Your task to perform on an android device: install app "Expedia: Hotels, Flights & Car" Image 0: 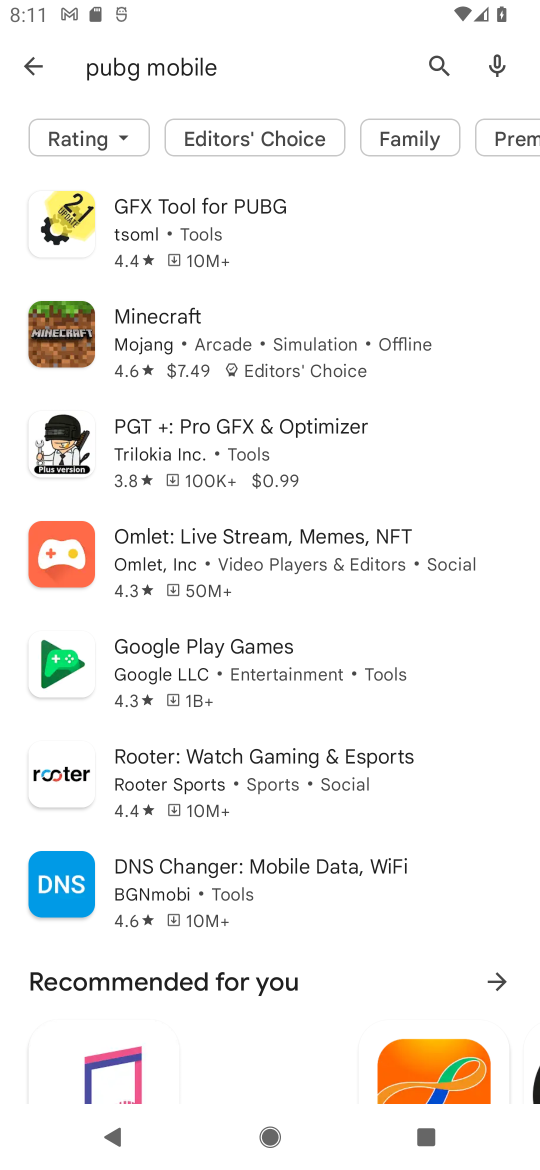
Step 0: press home button
Your task to perform on an android device: install app "Expedia: Hotels, Flights & Car" Image 1: 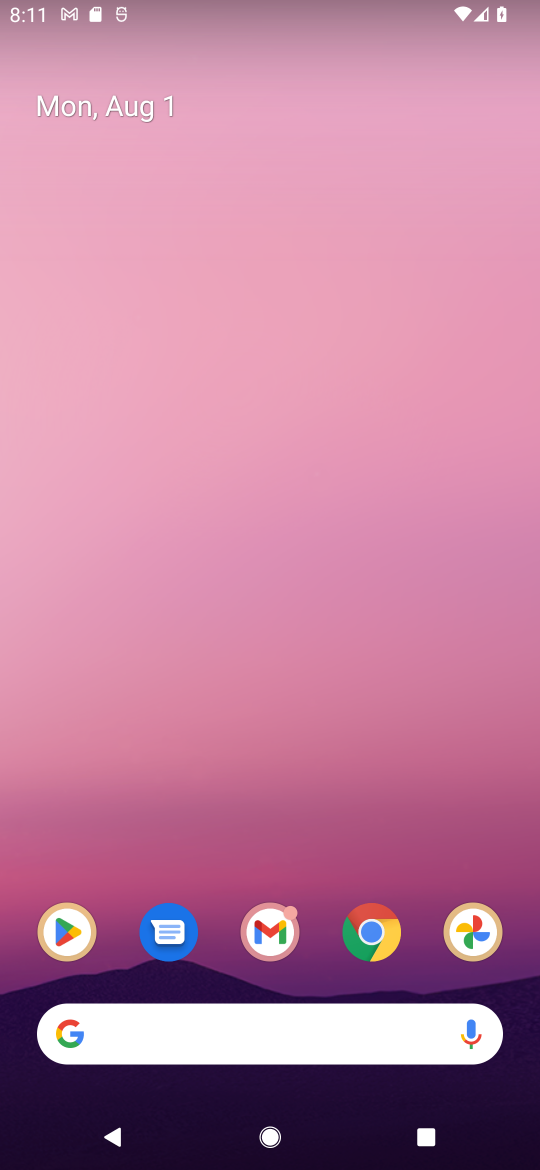
Step 1: click (64, 920)
Your task to perform on an android device: install app "Expedia: Hotels, Flights & Car" Image 2: 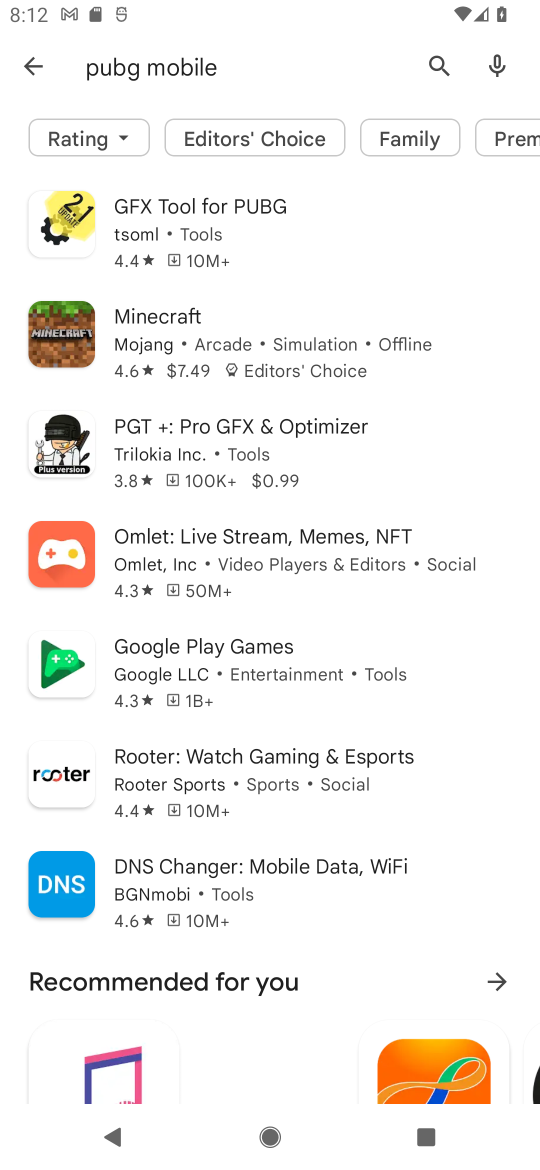
Step 2: click (244, 66)
Your task to perform on an android device: install app "Expedia: Hotels, Flights & Car" Image 3: 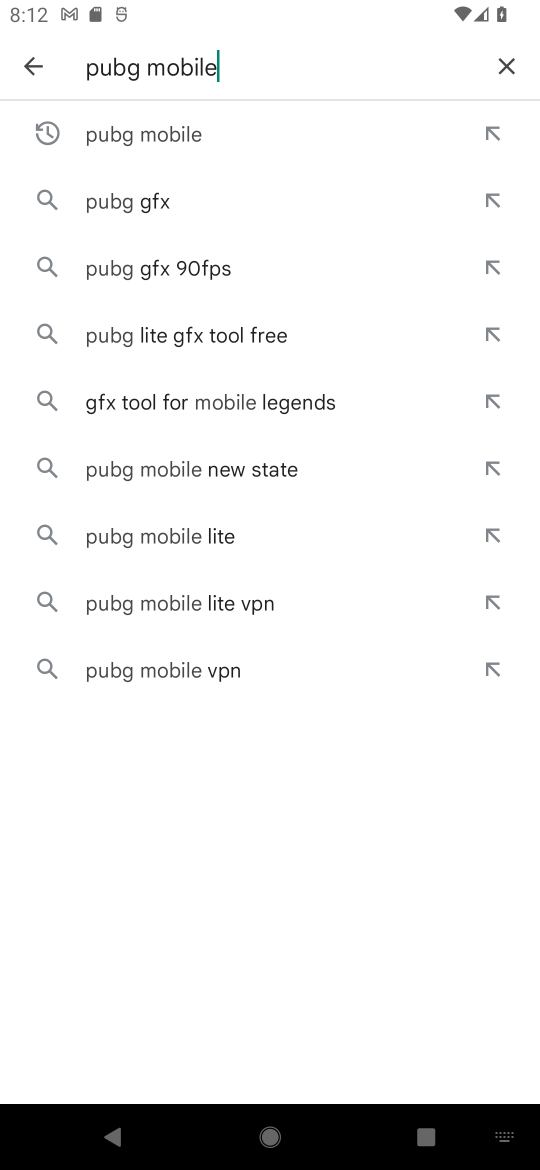
Step 3: click (507, 72)
Your task to perform on an android device: install app "Expedia: Hotels, Flights & Car" Image 4: 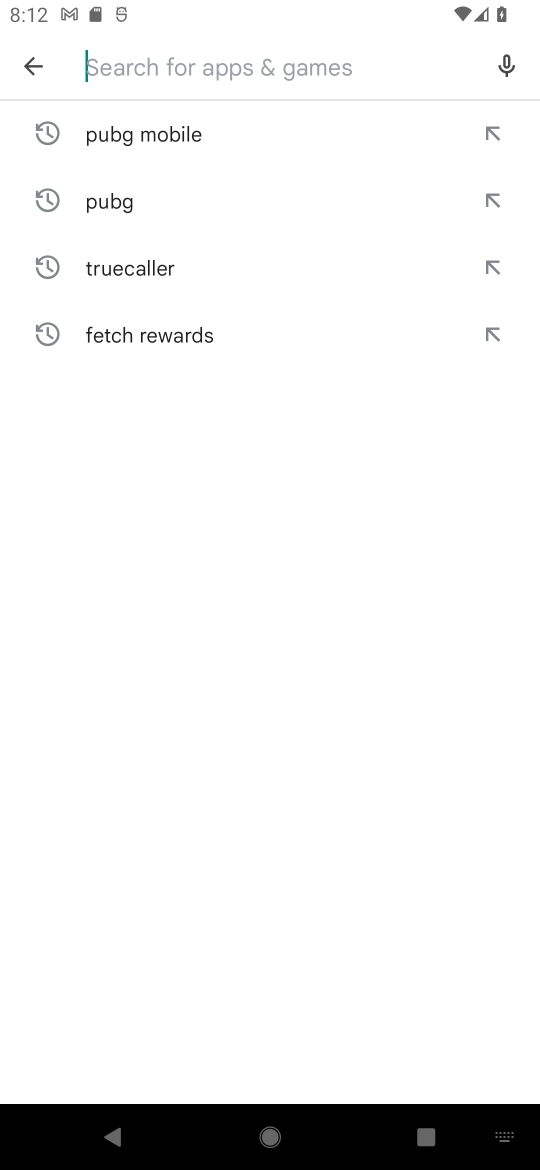
Step 4: type "Expedia"
Your task to perform on an android device: install app "Expedia: Hotels, Flights & Car" Image 5: 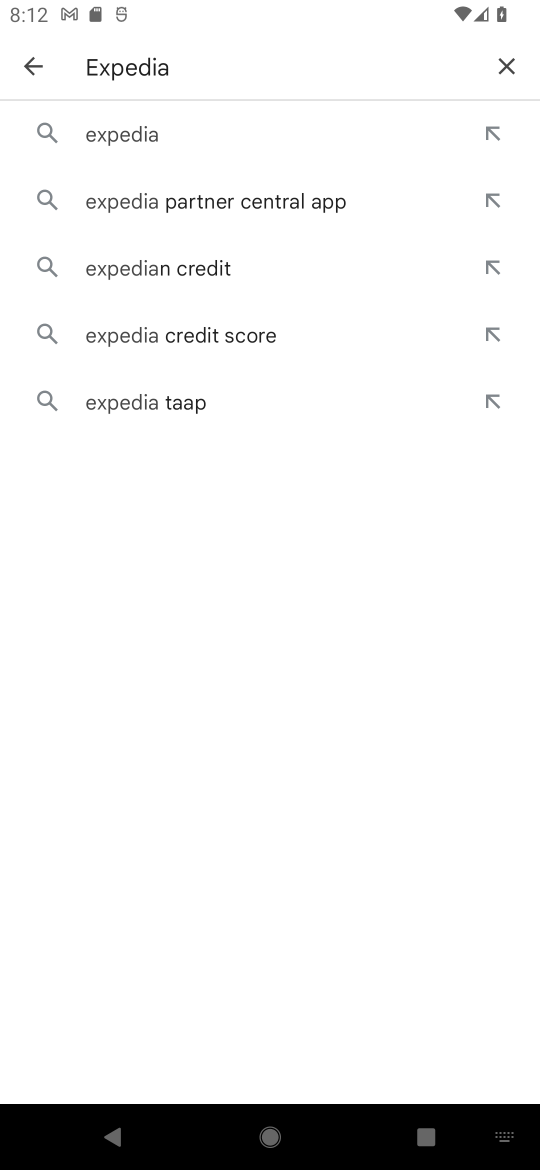
Step 5: click (142, 149)
Your task to perform on an android device: install app "Expedia: Hotels, Flights & Car" Image 6: 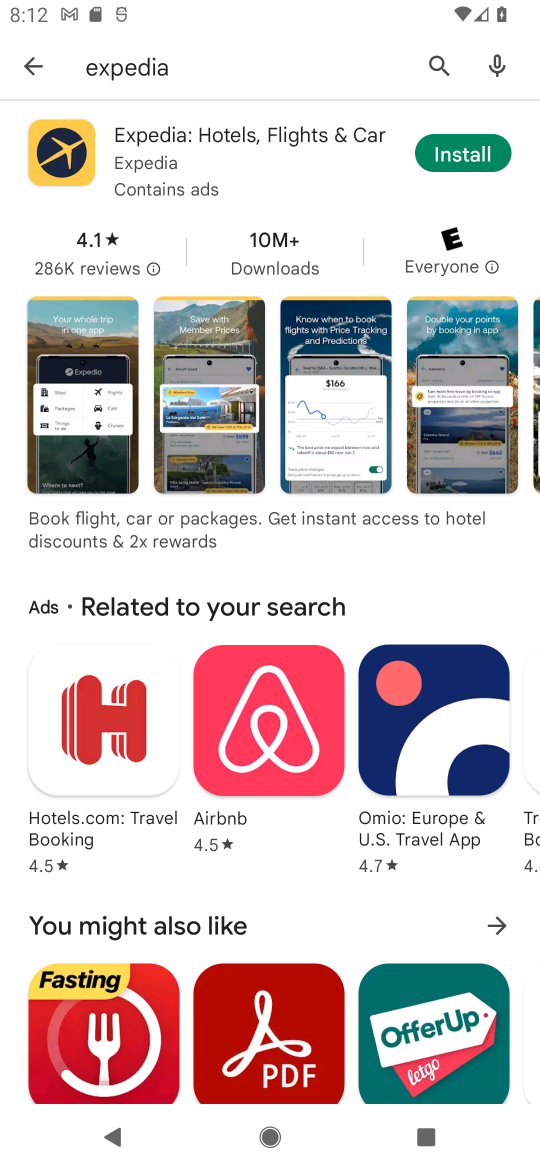
Step 6: click (441, 155)
Your task to perform on an android device: install app "Expedia: Hotels, Flights & Car" Image 7: 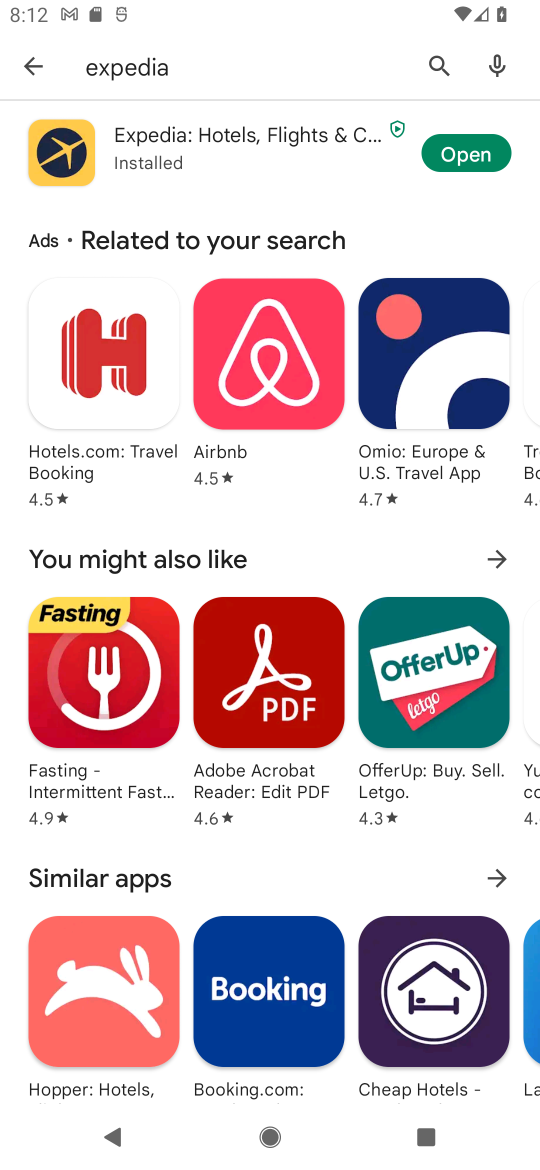
Step 7: task complete